Your task to perform on an android device: Go to Reddit.com Image 0: 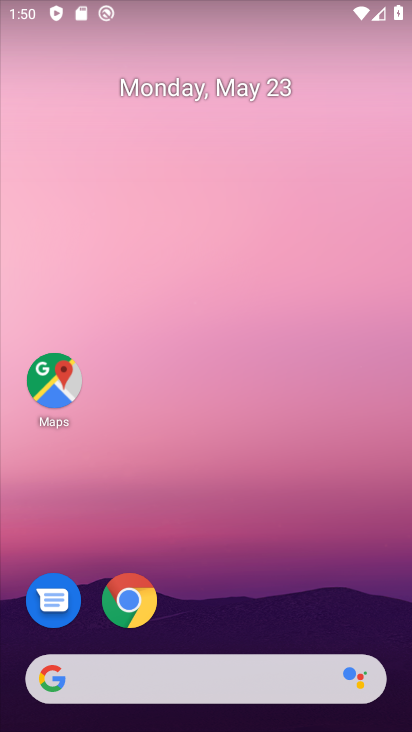
Step 0: click (116, 589)
Your task to perform on an android device: Go to Reddit.com Image 1: 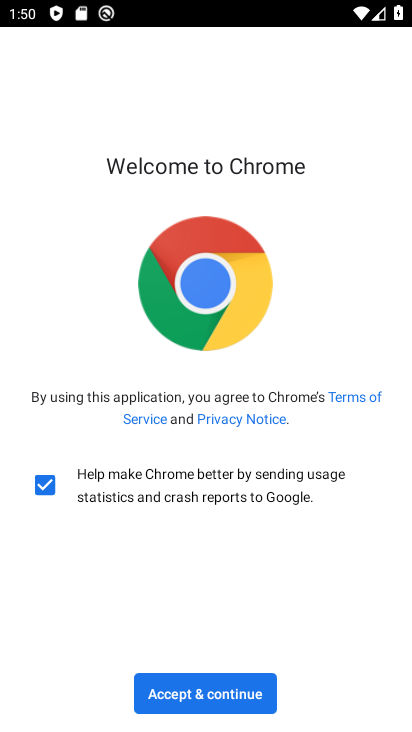
Step 1: click (176, 691)
Your task to perform on an android device: Go to Reddit.com Image 2: 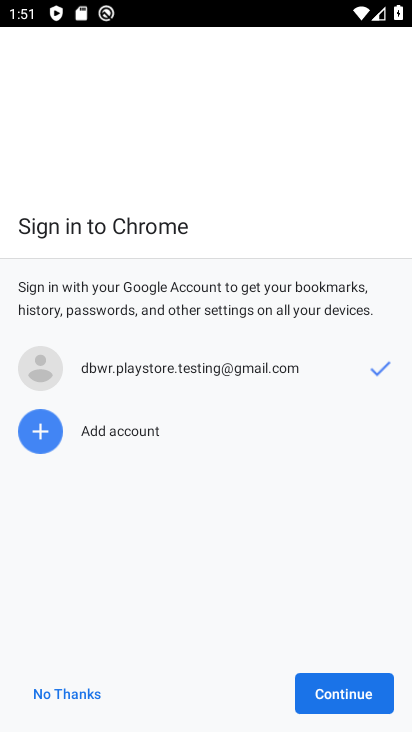
Step 2: click (339, 696)
Your task to perform on an android device: Go to Reddit.com Image 3: 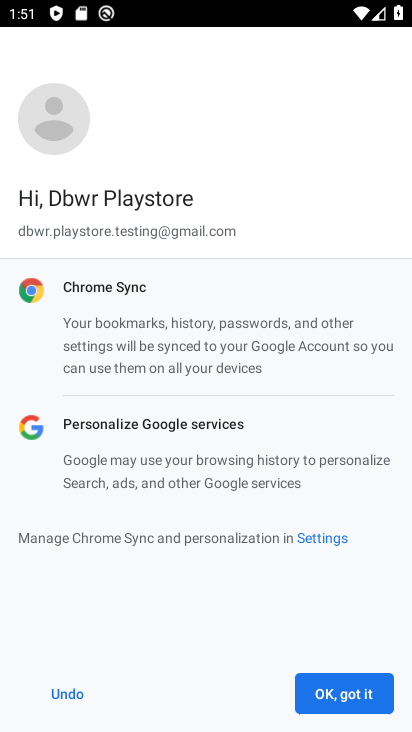
Step 3: click (345, 694)
Your task to perform on an android device: Go to Reddit.com Image 4: 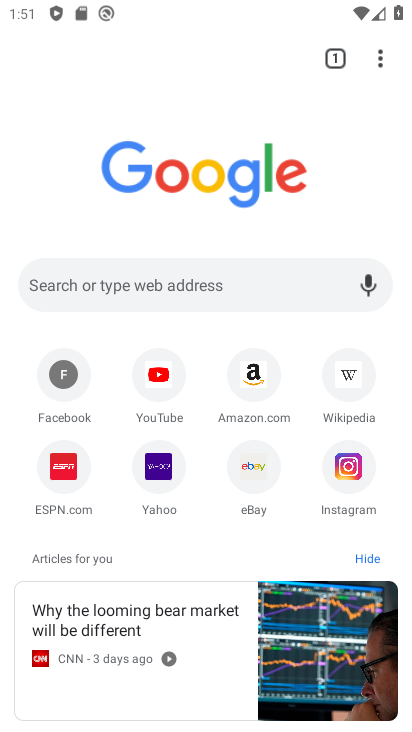
Step 4: click (233, 273)
Your task to perform on an android device: Go to Reddit.com Image 5: 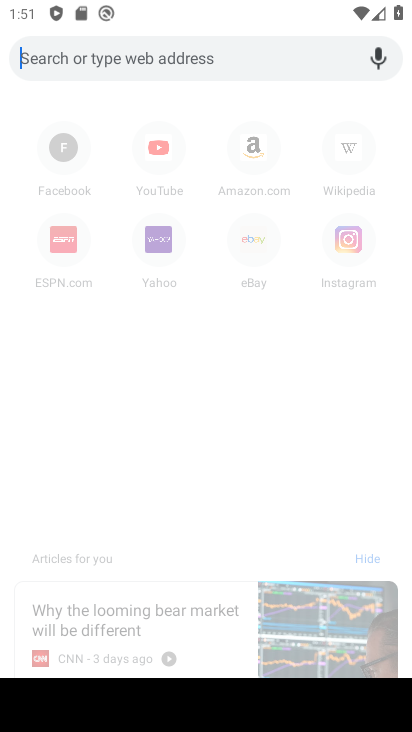
Step 5: click (233, 49)
Your task to perform on an android device: Go to Reddit.com Image 6: 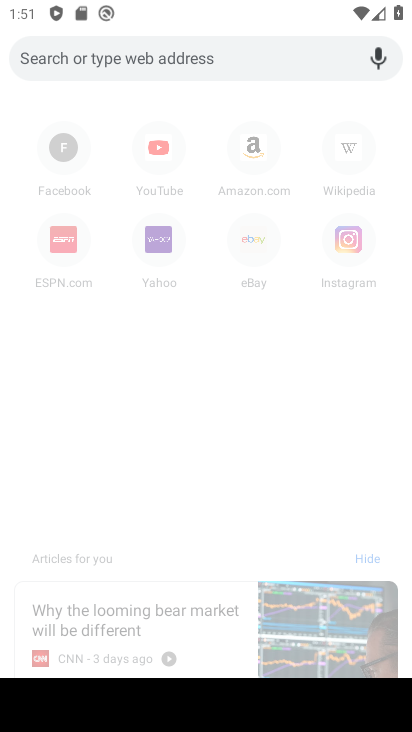
Step 6: type " Reddit.com"
Your task to perform on an android device: Go to Reddit.com Image 7: 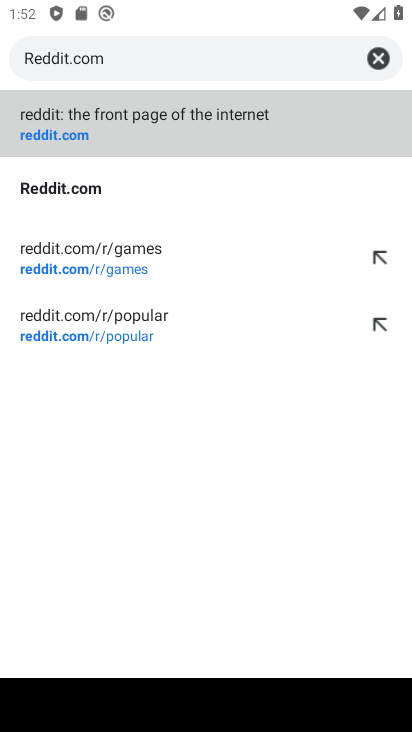
Step 7: click (170, 121)
Your task to perform on an android device: Go to Reddit.com Image 8: 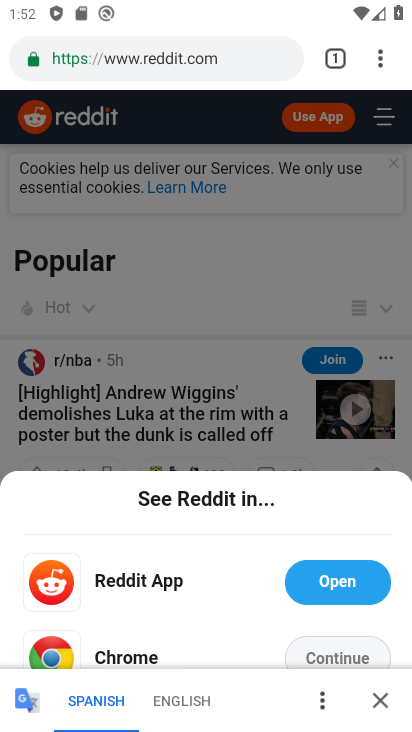
Step 8: task complete